Your task to perform on an android device: Open the calendar and show me this week's events? Image 0: 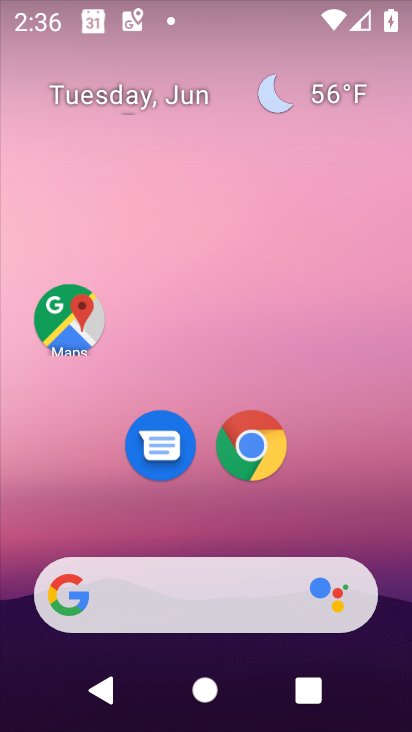
Step 0: drag from (263, 426) to (303, 30)
Your task to perform on an android device: Open the calendar and show me this week's events? Image 1: 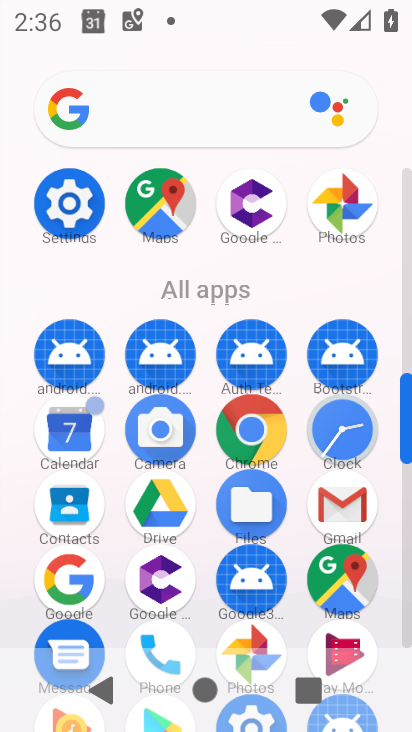
Step 1: click (76, 429)
Your task to perform on an android device: Open the calendar and show me this week's events? Image 2: 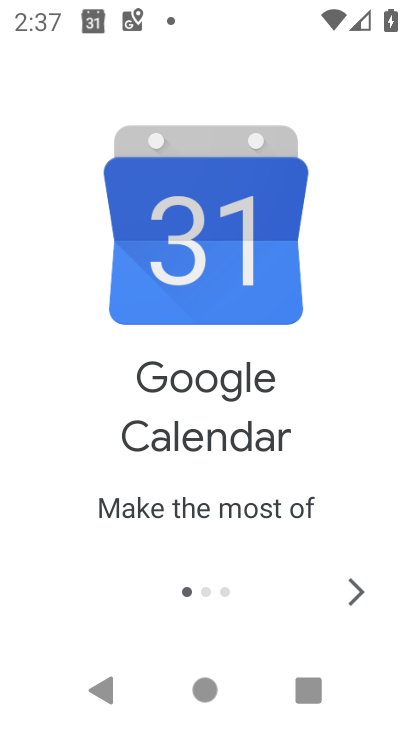
Step 2: click (357, 596)
Your task to perform on an android device: Open the calendar and show me this week's events? Image 3: 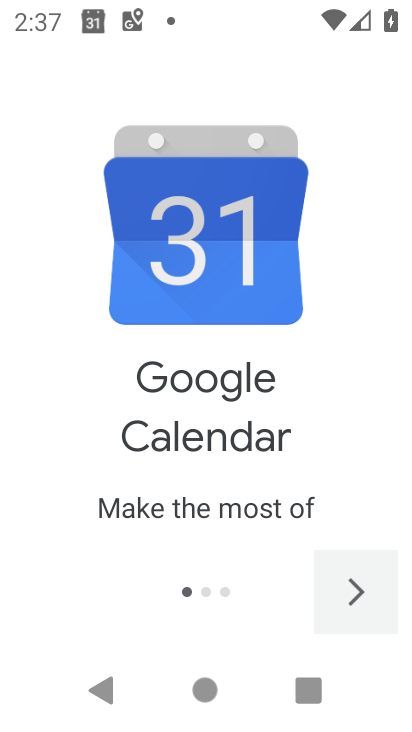
Step 3: click (357, 594)
Your task to perform on an android device: Open the calendar and show me this week's events? Image 4: 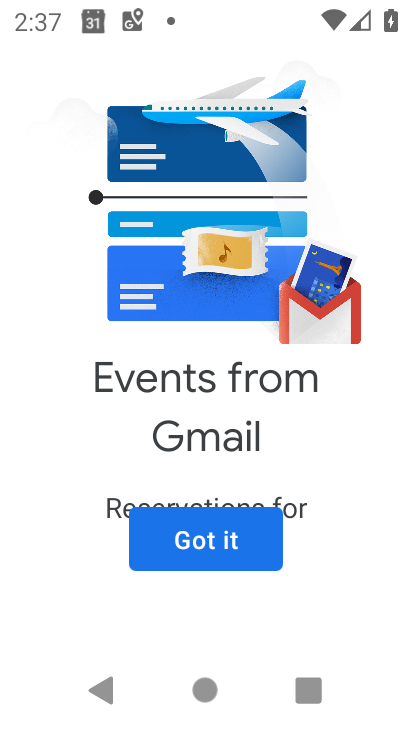
Step 4: click (357, 593)
Your task to perform on an android device: Open the calendar and show me this week's events? Image 5: 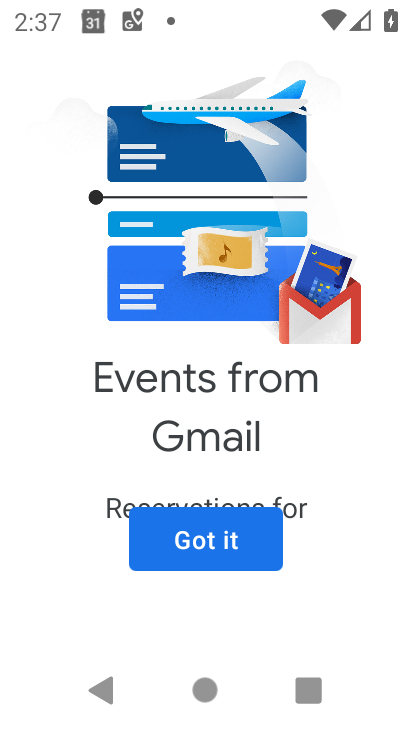
Step 5: click (201, 558)
Your task to perform on an android device: Open the calendar and show me this week's events? Image 6: 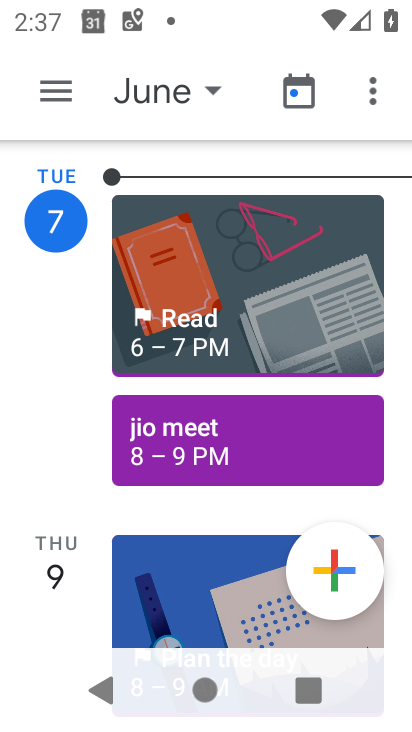
Step 6: click (164, 87)
Your task to perform on an android device: Open the calendar and show me this week's events? Image 7: 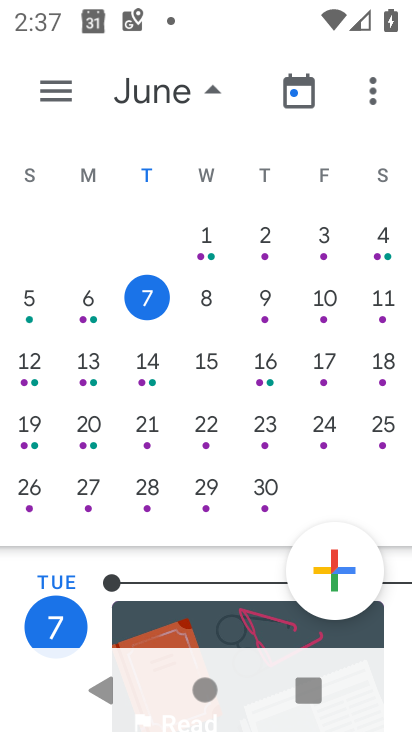
Step 7: click (26, 364)
Your task to perform on an android device: Open the calendar and show me this week's events? Image 8: 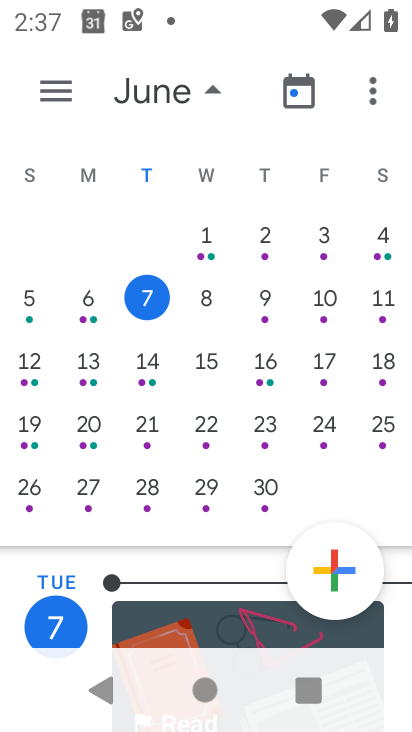
Step 8: click (47, 358)
Your task to perform on an android device: Open the calendar and show me this week's events? Image 9: 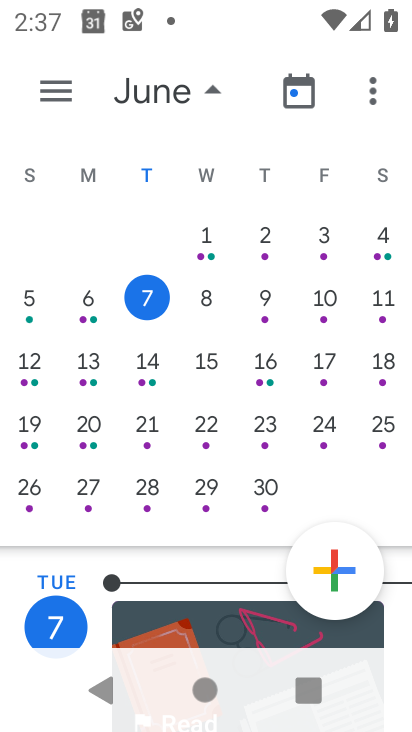
Step 9: click (15, 370)
Your task to perform on an android device: Open the calendar and show me this week's events? Image 10: 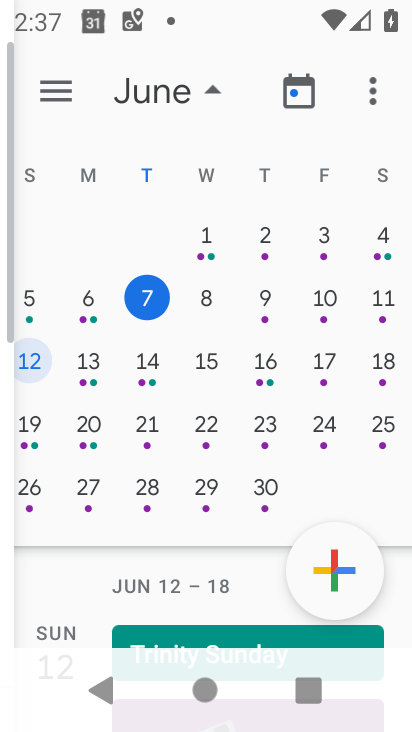
Step 10: click (34, 363)
Your task to perform on an android device: Open the calendar and show me this week's events? Image 11: 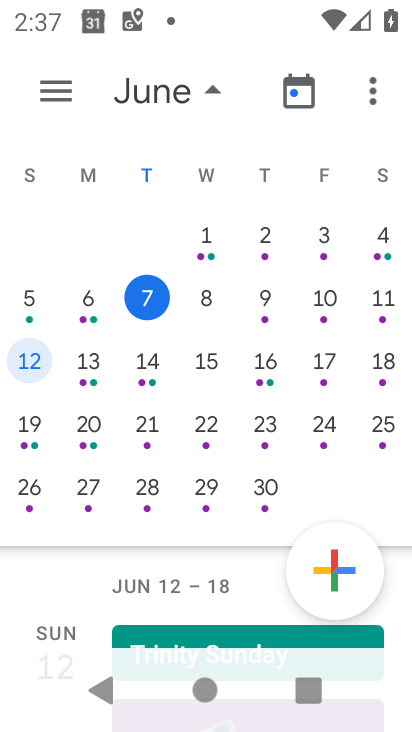
Step 11: task complete